Your task to perform on an android device: Go to Google Image 0: 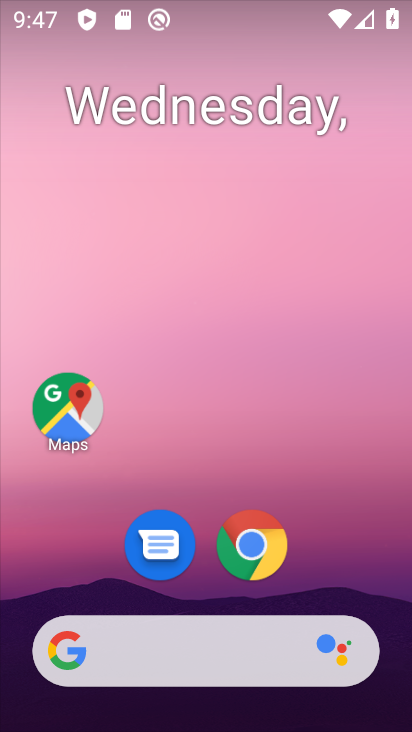
Step 0: click (89, 654)
Your task to perform on an android device: Go to Google Image 1: 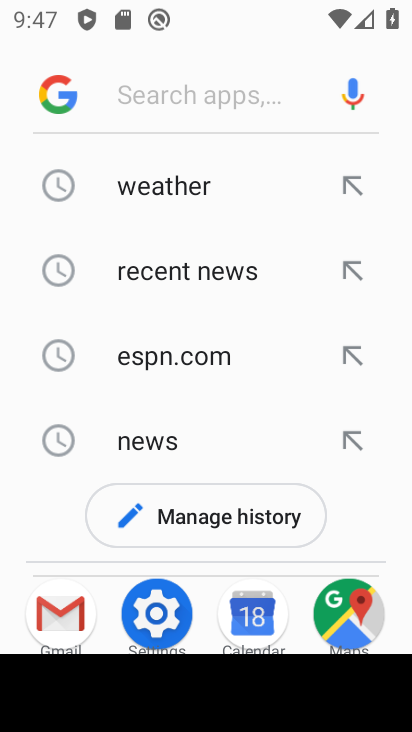
Step 1: click (53, 89)
Your task to perform on an android device: Go to Google Image 2: 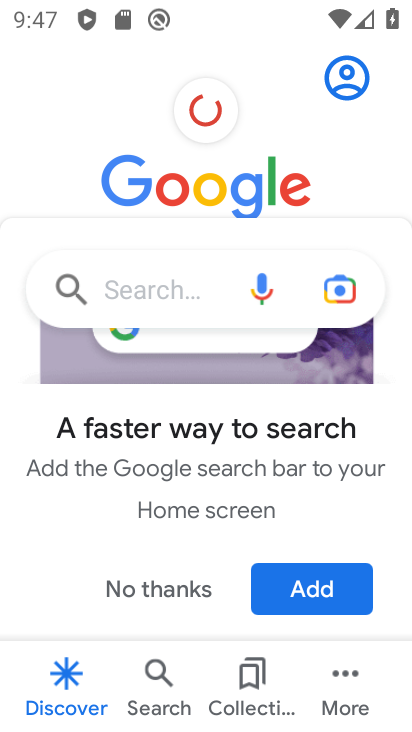
Step 2: task complete